Your task to perform on an android device: Go to internet settings Image 0: 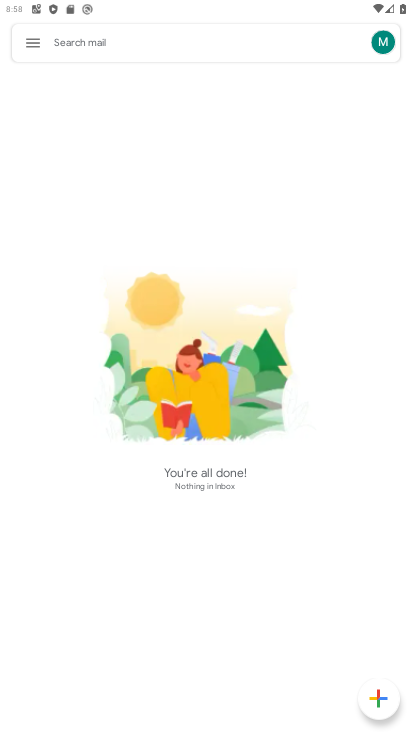
Step 0: press home button
Your task to perform on an android device: Go to internet settings Image 1: 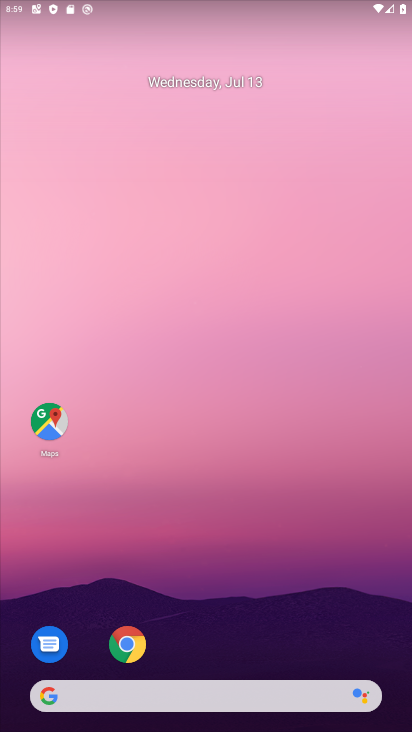
Step 1: drag from (245, 713) to (239, 178)
Your task to perform on an android device: Go to internet settings Image 2: 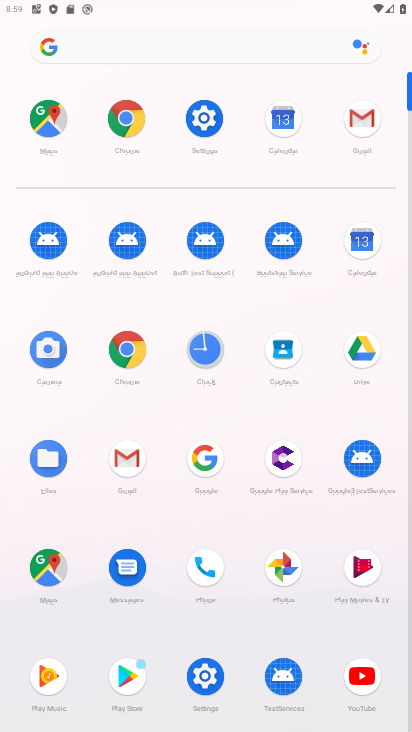
Step 2: click (202, 117)
Your task to perform on an android device: Go to internet settings Image 3: 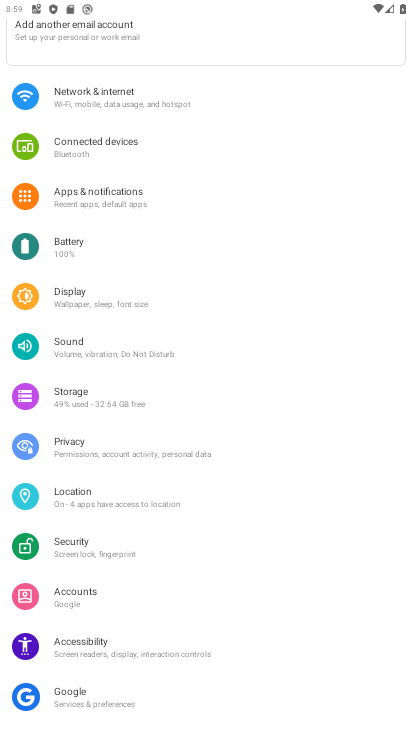
Step 3: click (83, 97)
Your task to perform on an android device: Go to internet settings Image 4: 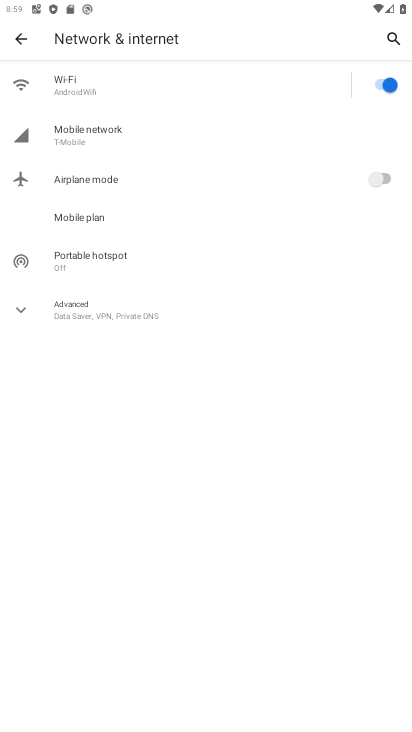
Step 4: task complete